Your task to perform on an android device: snooze an email in the gmail app Image 0: 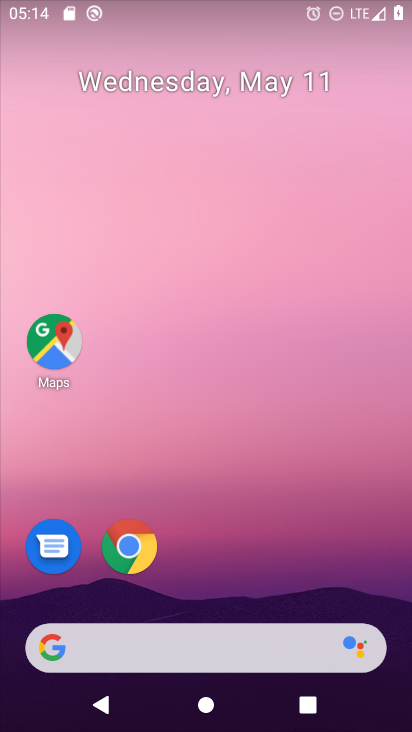
Step 0: drag from (318, 624) to (362, 15)
Your task to perform on an android device: snooze an email in the gmail app Image 1: 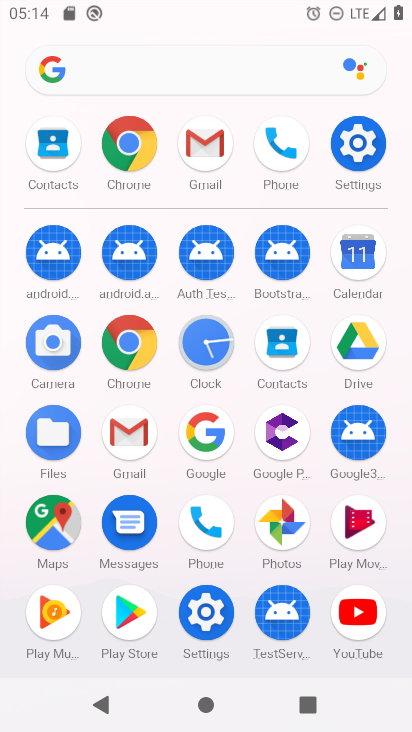
Step 1: click (140, 421)
Your task to perform on an android device: snooze an email in the gmail app Image 2: 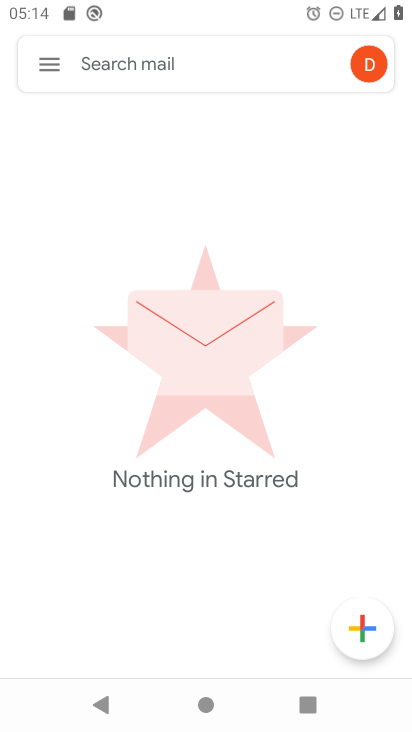
Step 2: click (52, 61)
Your task to perform on an android device: snooze an email in the gmail app Image 3: 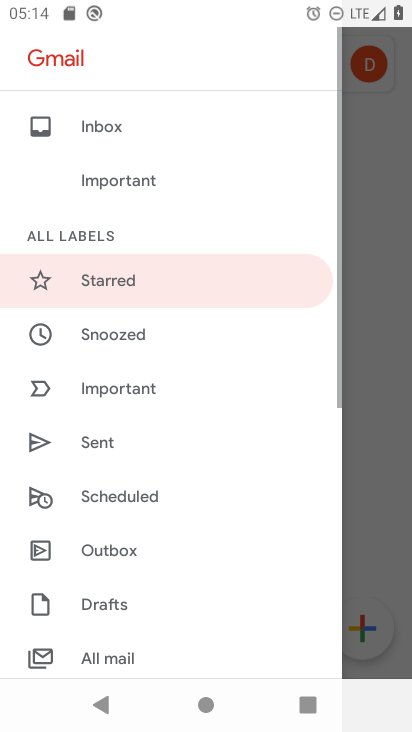
Step 3: click (142, 344)
Your task to perform on an android device: snooze an email in the gmail app Image 4: 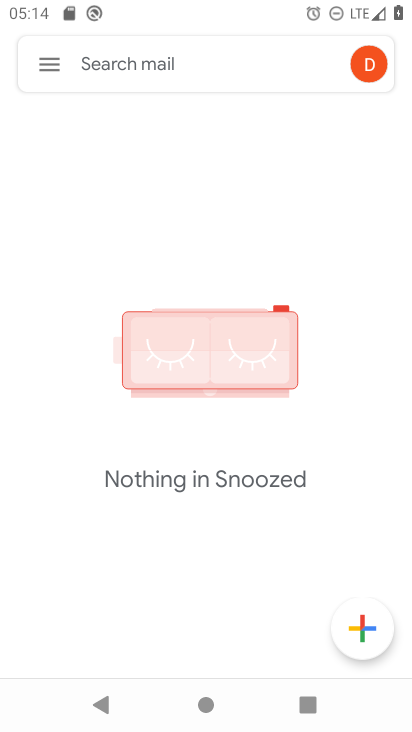
Step 4: task complete